Your task to perform on an android device: What's the weather? Image 0: 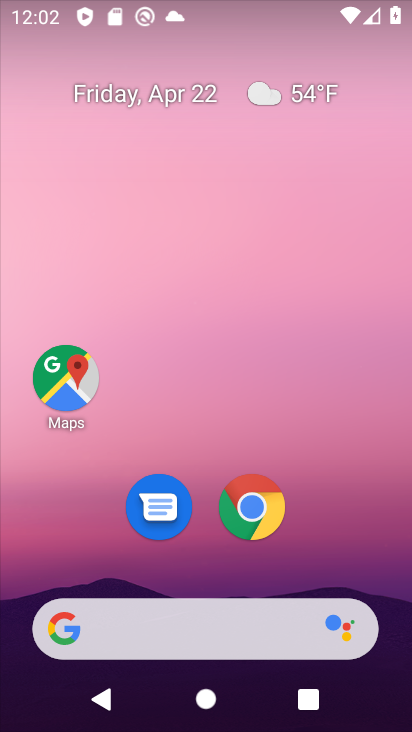
Step 0: click (294, 89)
Your task to perform on an android device: What's the weather? Image 1: 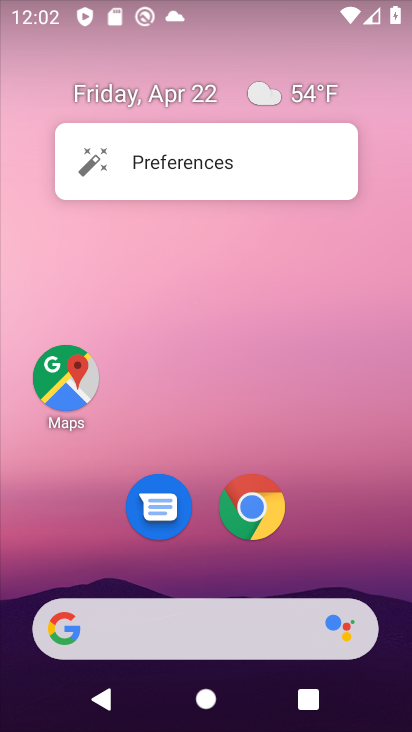
Step 1: click (293, 103)
Your task to perform on an android device: What's the weather? Image 2: 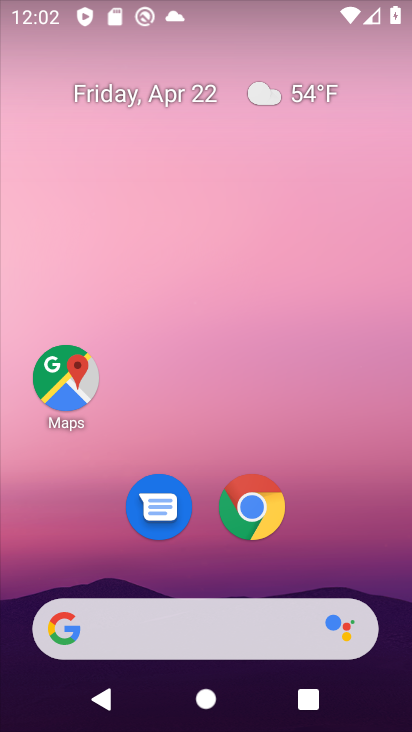
Step 2: click (290, 79)
Your task to perform on an android device: What's the weather? Image 3: 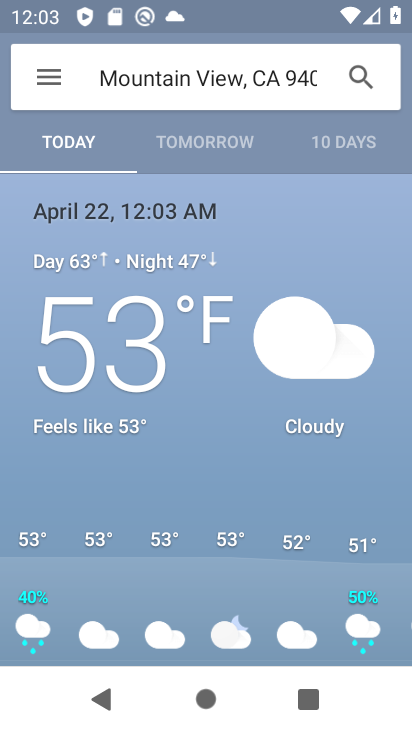
Step 3: task complete